Your task to perform on an android device: turn off improve location accuracy Image 0: 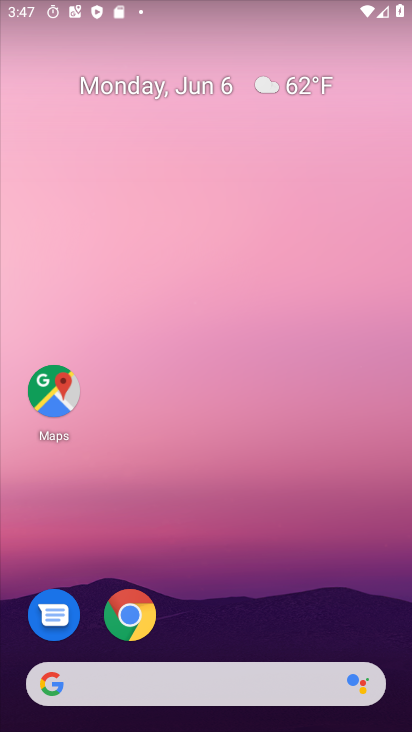
Step 0: drag from (304, 687) to (300, 25)
Your task to perform on an android device: turn off improve location accuracy Image 1: 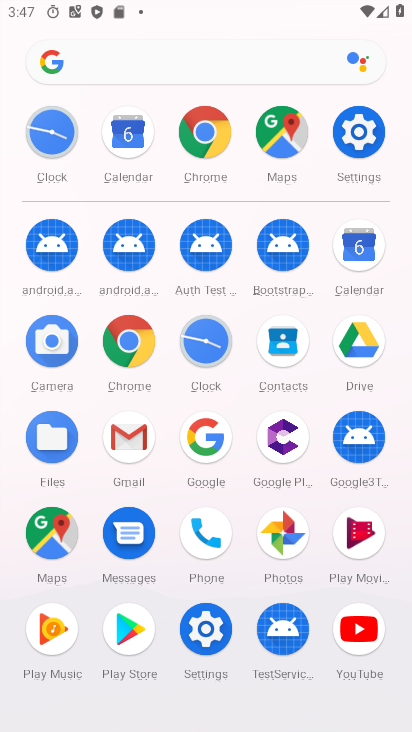
Step 1: click (367, 125)
Your task to perform on an android device: turn off improve location accuracy Image 2: 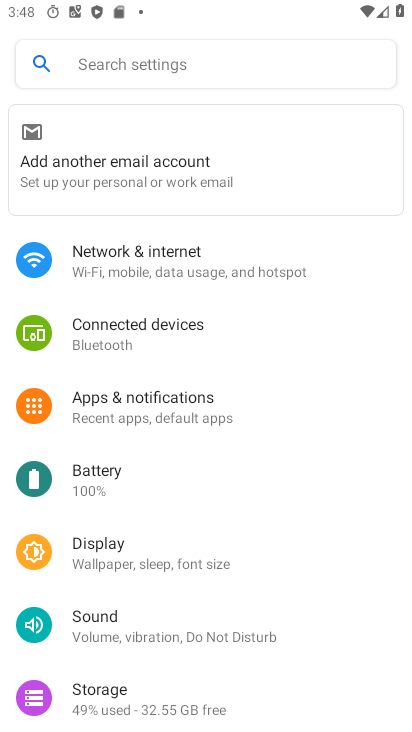
Step 2: drag from (236, 681) to (309, 207)
Your task to perform on an android device: turn off improve location accuracy Image 3: 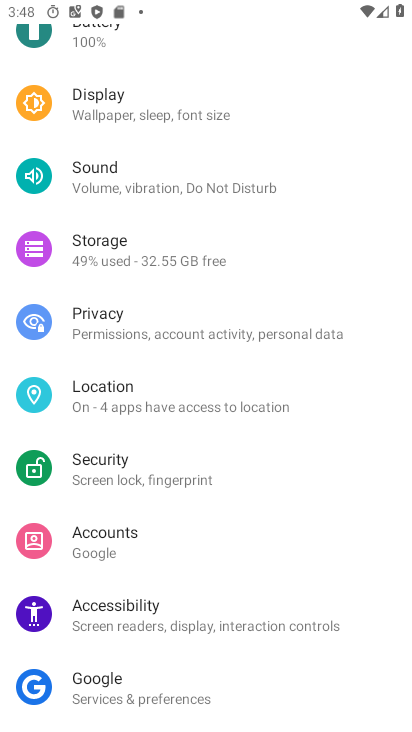
Step 3: click (137, 388)
Your task to perform on an android device: turn off improve location accuracy Image 4: 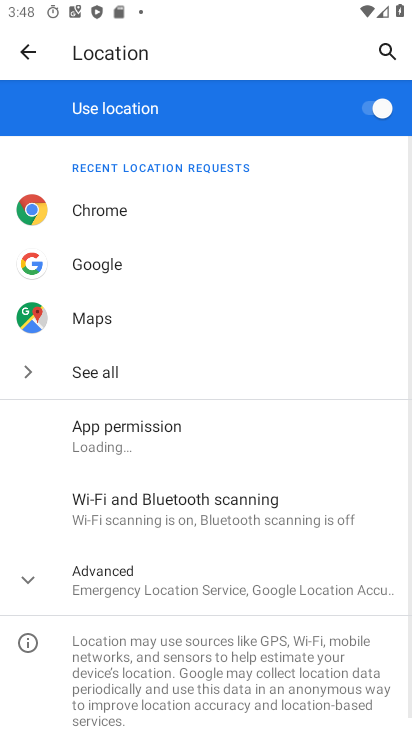
Step 4: click (364, 110)
Your task to perform on an android device: turn off improve location accuracy Image 5: 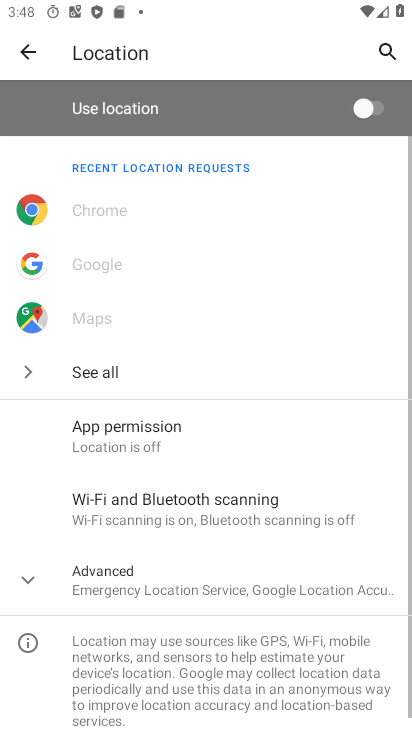
Step 5: task complete